Your task to perform on an android device: Open the map Image 0: 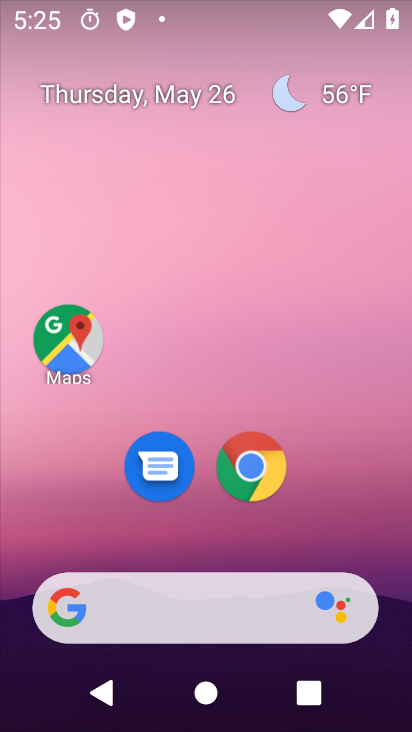
Step 0: drag from (315, 544) to (281, 84)
Your task to perform on an android device: Open the map Image 1: 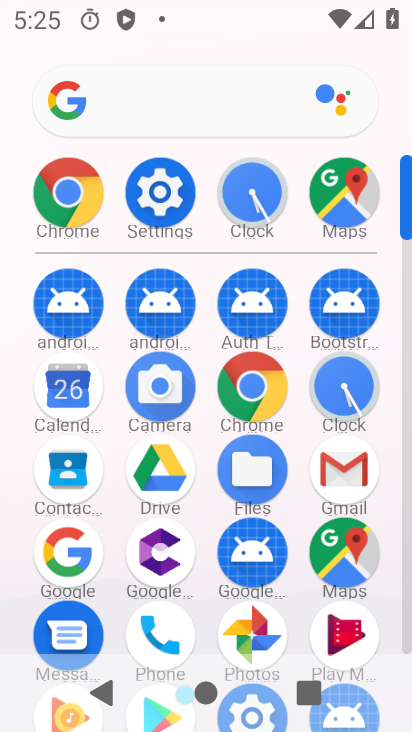
Step 1: click (347, 552)
Your task to perform on an android device: Open the map Image 2: 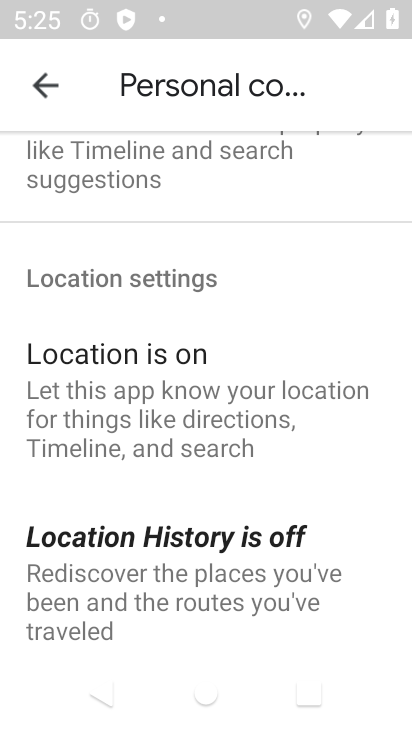
Step 2: click (37, 88)
Your task to perform on an android device: Open the map Image 3: 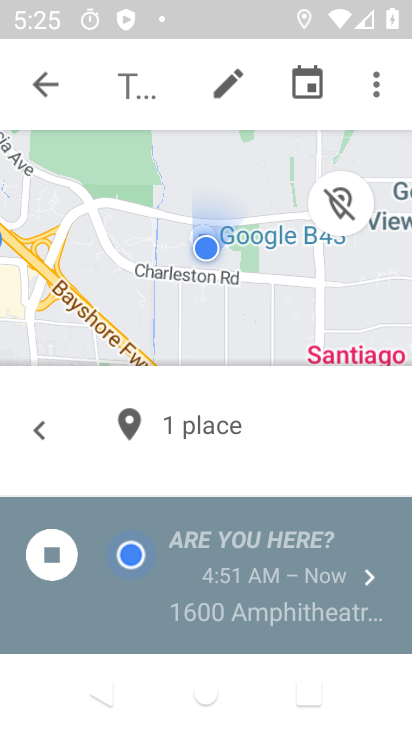
Step 3: click (38, 87)
Your task to perform on an android device: Open the map Image 4: 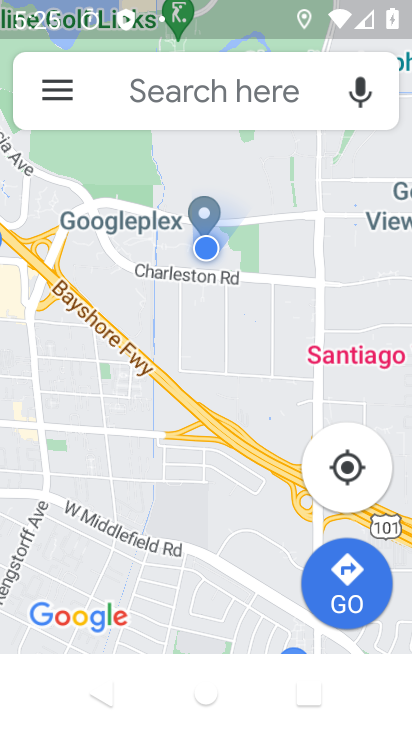
Step 4: task complete